Your task to perform on an android device: see creations saved in the google photos Image 0: 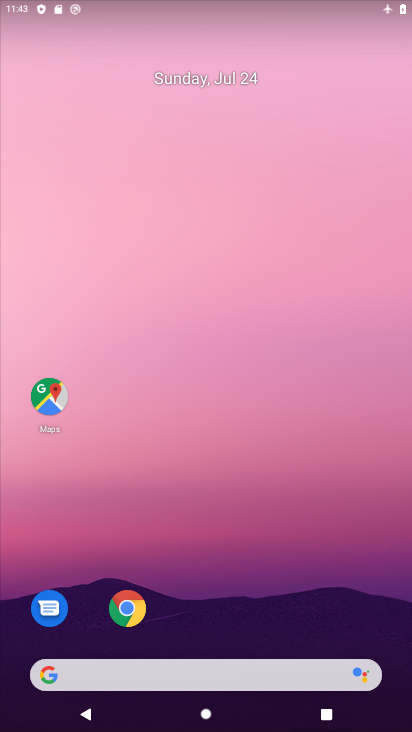
Step 0: click (149, 612)
Your task to perform on an android device: see creations saved in the google photos Image 1: 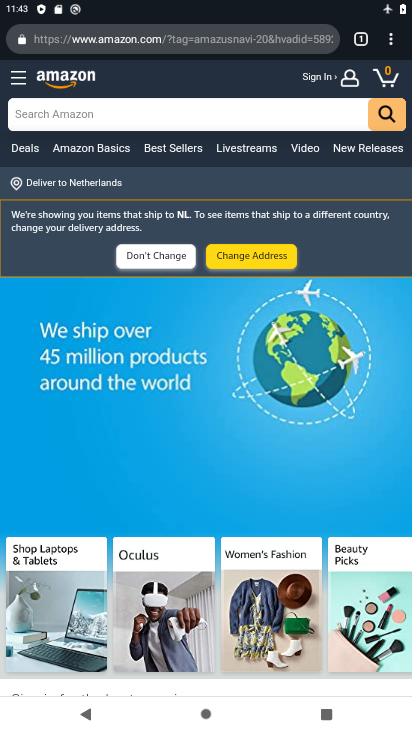
Step 1: press home button
Your task to perform on an android device: see creations saved in the google photos Image 2: 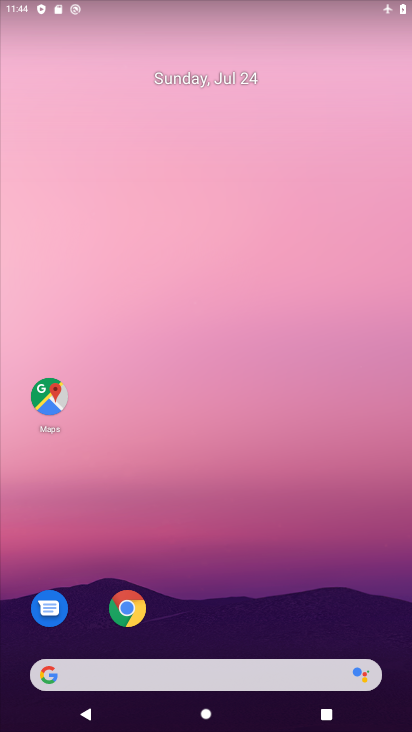
Step 2: drag from (201, 619) to (153, 236)
Your task to perform on an android device: see creations saved in the google photos Image 3: 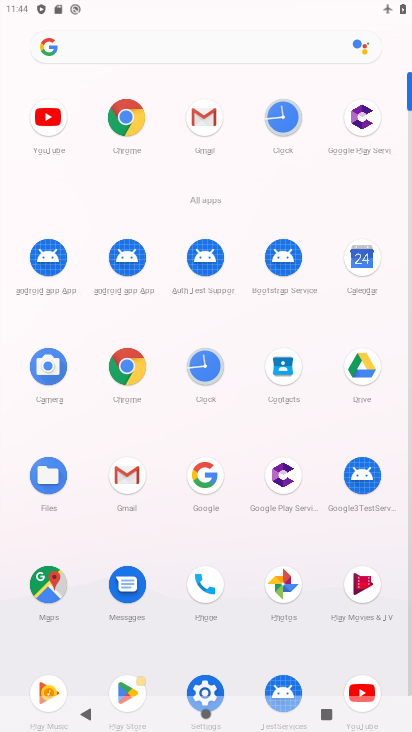
Step 3: click (269, 585)
Your task to perform on an android device: see creations saved in the google photos Image 4: 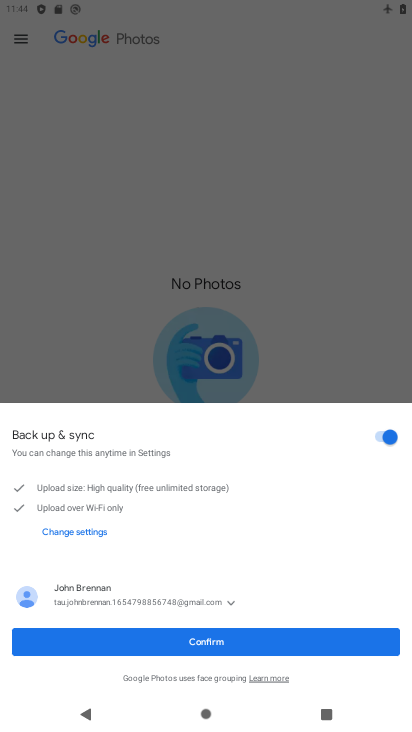
Step 4: click (258, 649)
Your task to perform on an android device: see creations saved in the google photos Image 5: 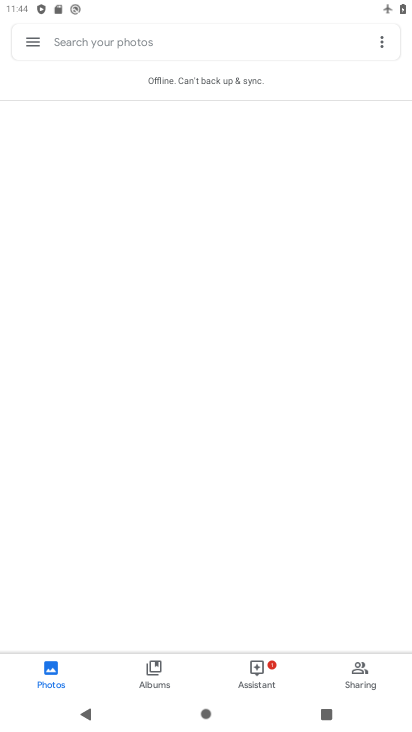
Step 5: click (189, 54)
Your task to perform on an android device: see creations saved in the google photos Image 6: 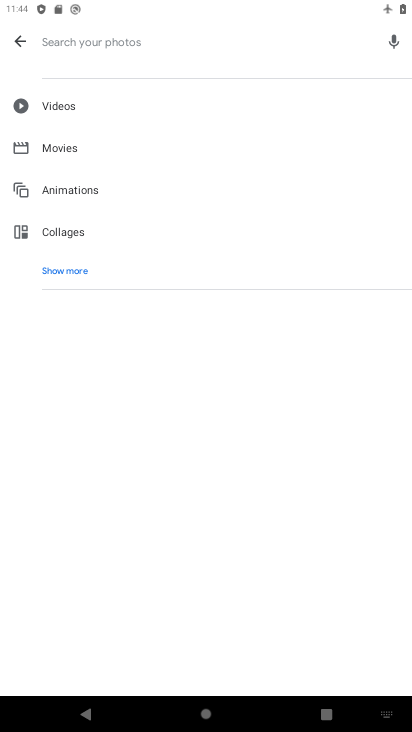
Step 6: click (75, 288)
Your task to perform on an android device: see creations saved in the google photos Image 7: 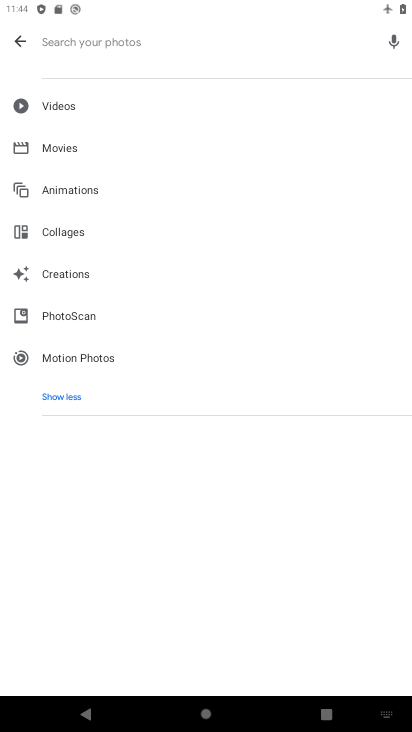
Step 7: click (81, 281)
Your task to perform on an android device: see creations saved in the google photos Image 8: 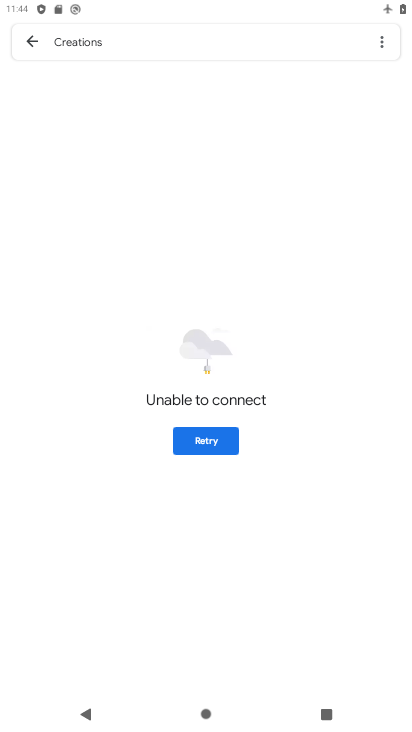
Step 8: task complete